Your task to perform on an android device: Go to eBay Image 0: 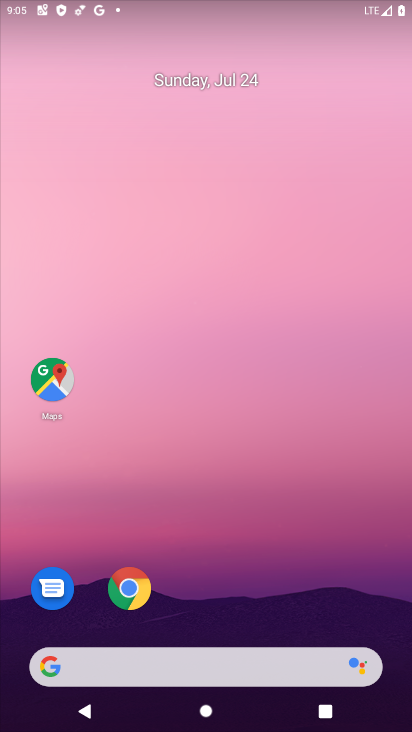
Step 0: click (58, 372)
Your task to perform on an android device: Go to eBay Image 1: 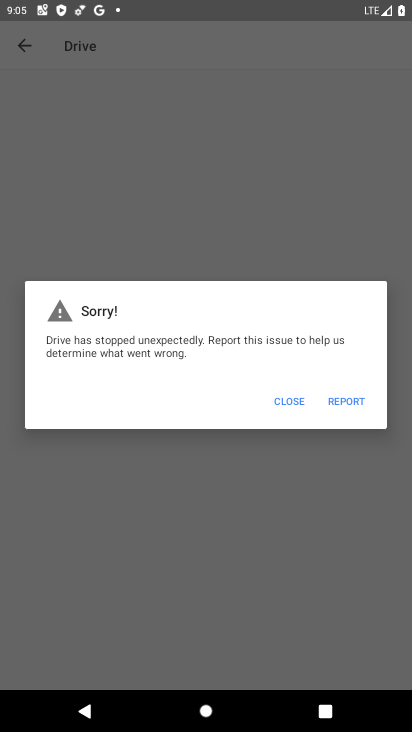
Step 1: press home button
Your task to perform on an android device: Go to eBay Image 2: 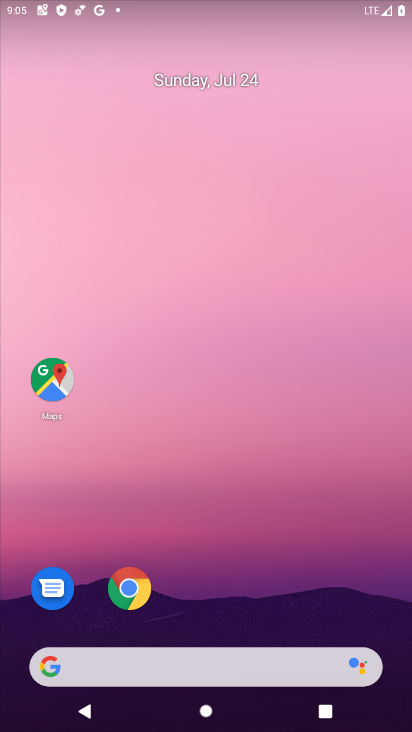
Step 2: click (129, 601)
Your task to perform on an android device: Go to eBay Image 3: 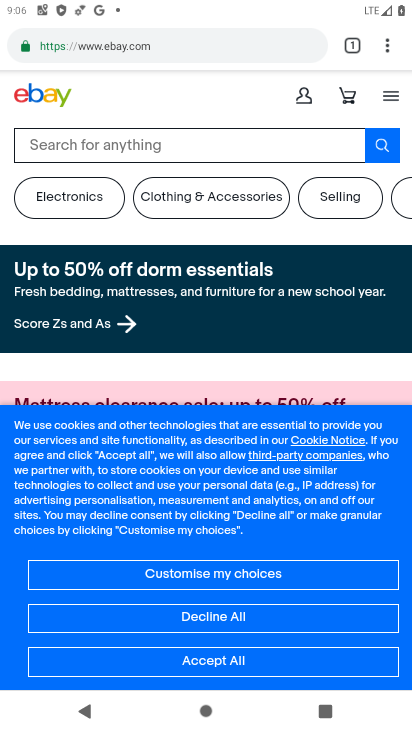
Step 3: task complete